Your task to perform on an android device: Go to settings Image 0: 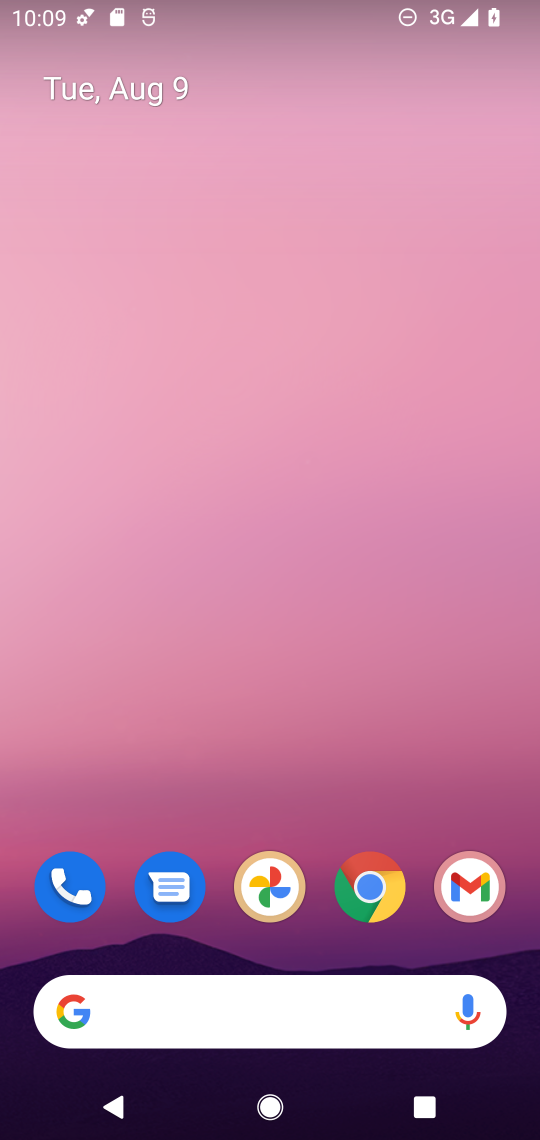
Step 0: drag from (253, 791) to (260, 39)
Your task to perform on an android device: Go to settings Image 1: 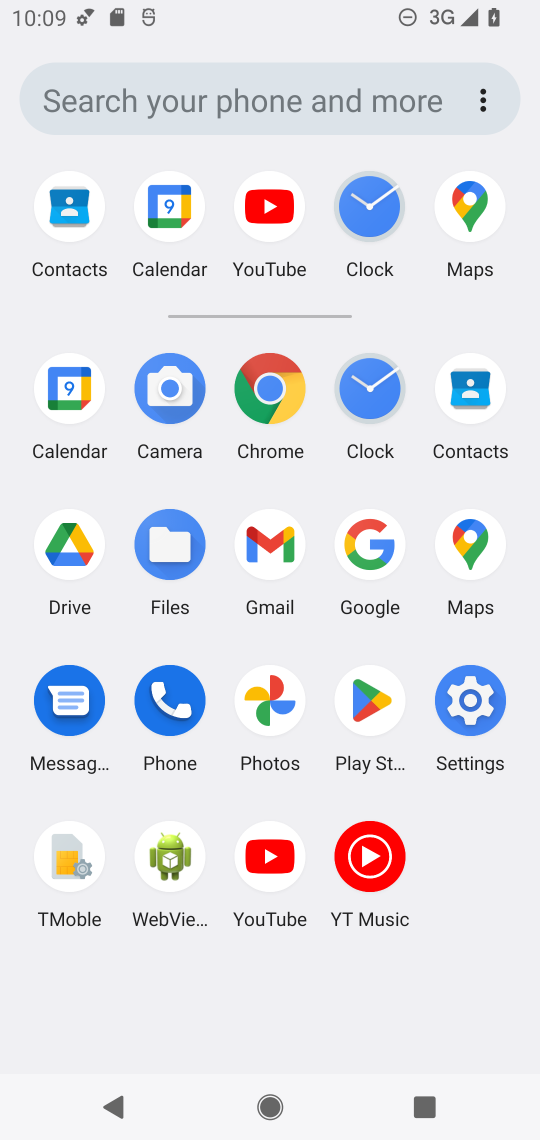
Step 1: click (456, 674)
Your task to perform on an android device: Go to settings Image 2: 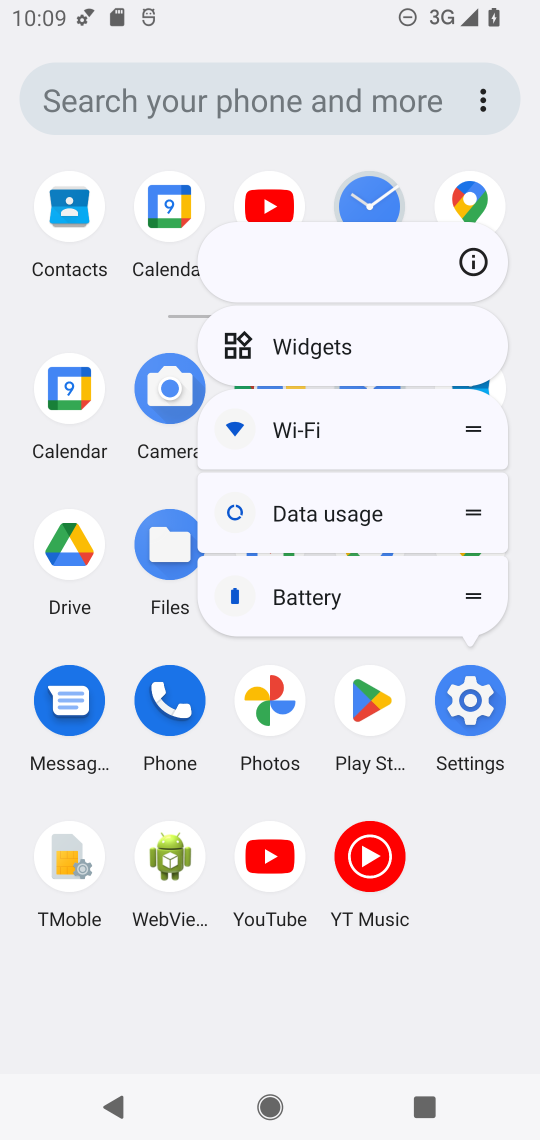
Step 2: click (458, 672)
Your task to perform on an android device: Go to settings Image 3: 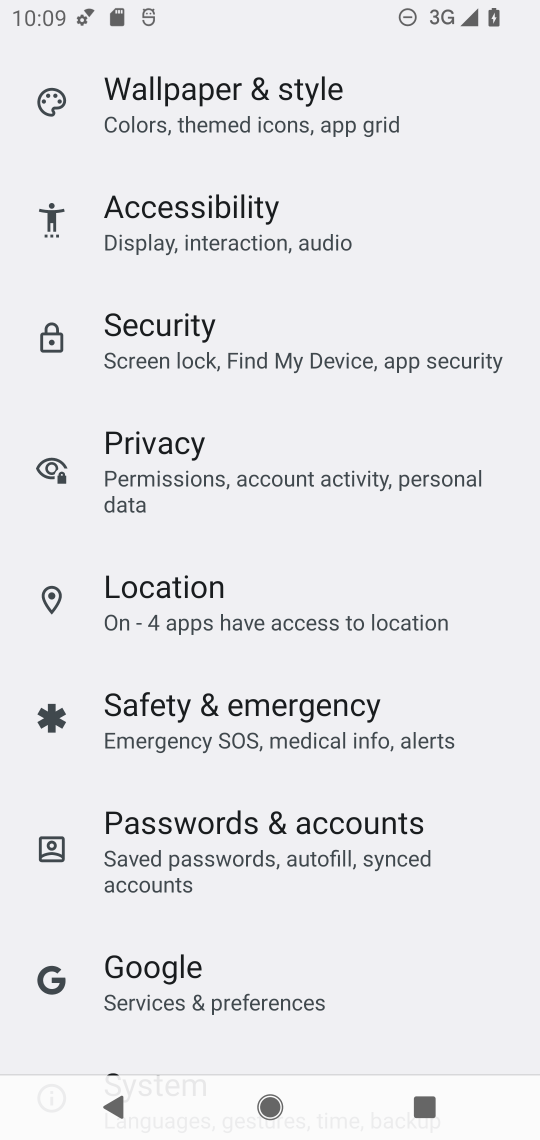
Step 3: task complete